Your task to perform on an android device: When is my next meeting? Image 0: 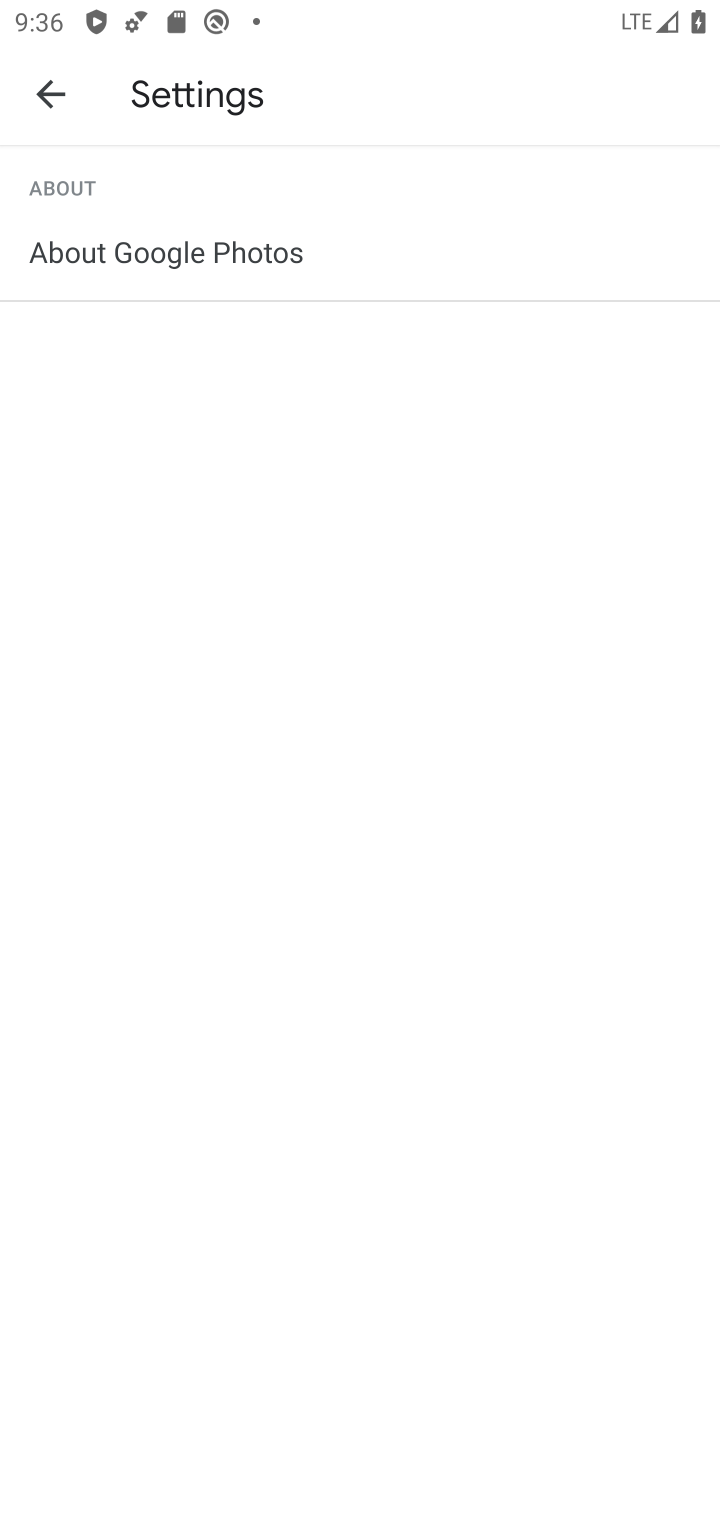
Step 0: press home button
Your task to perform on an android device: When is my next meeting? Image 1: 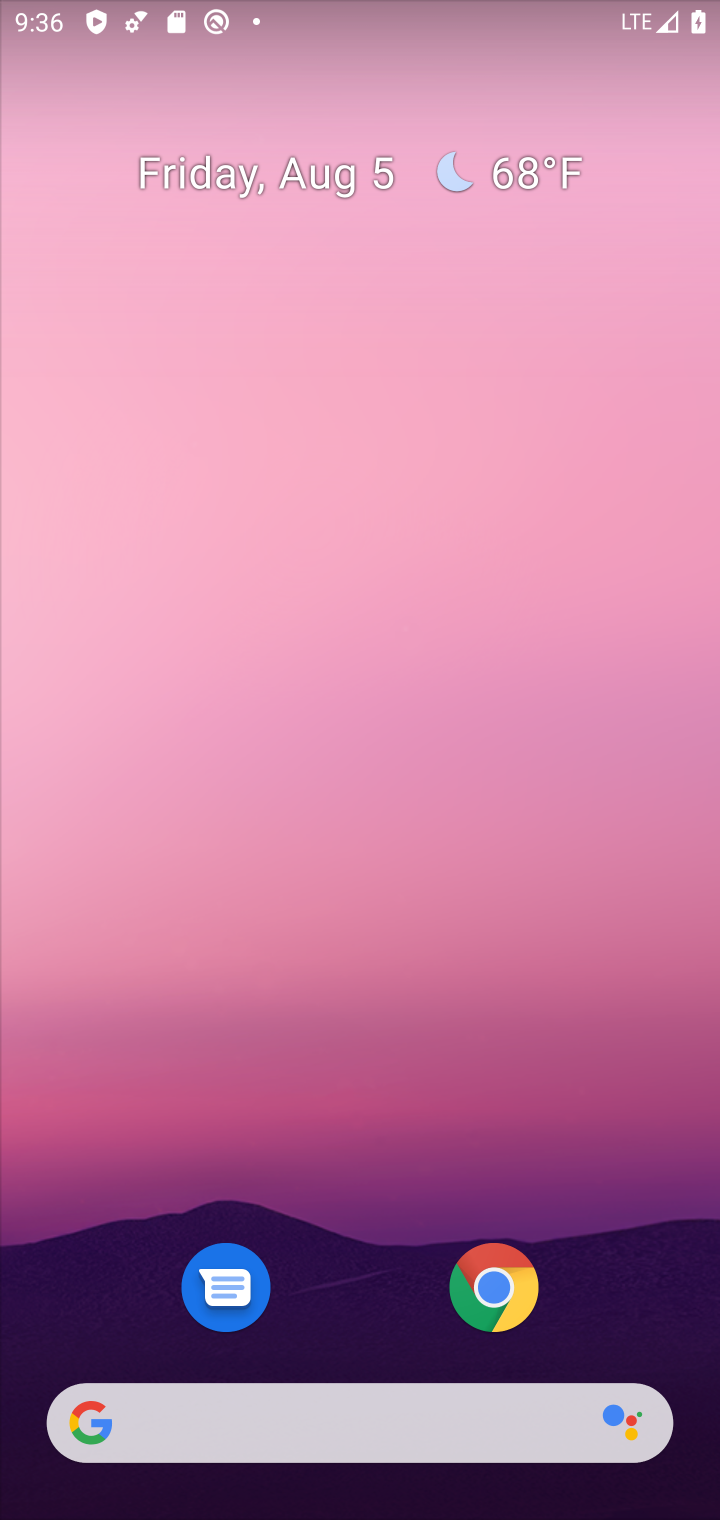
Step 1: drag from (295, 800) to (274, 213)
Your task to perform on an android device: When is my next meeting? Image 2: 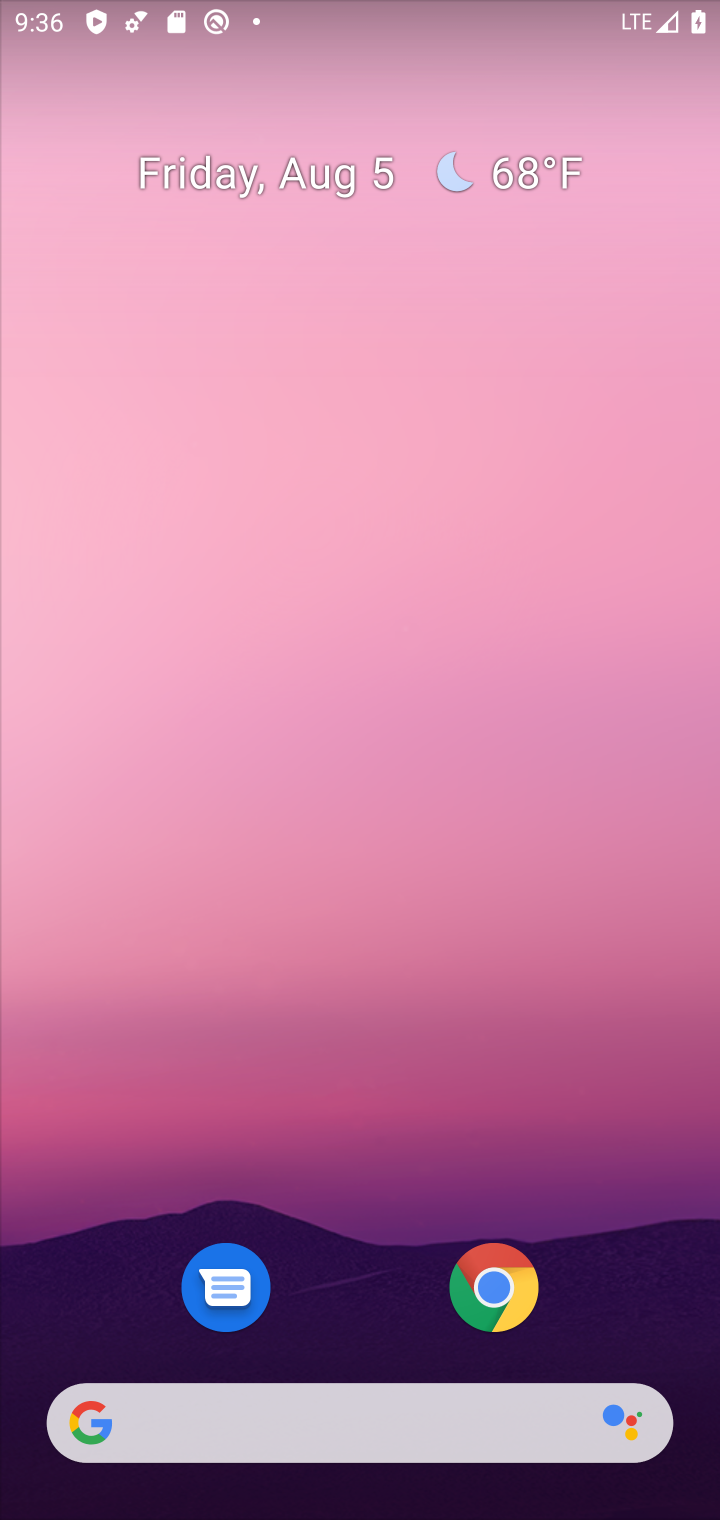
Step 2: drag from (336, 1246) to (297, 81)
Your task to perform on an android device: When is my next meeting? Image 3: 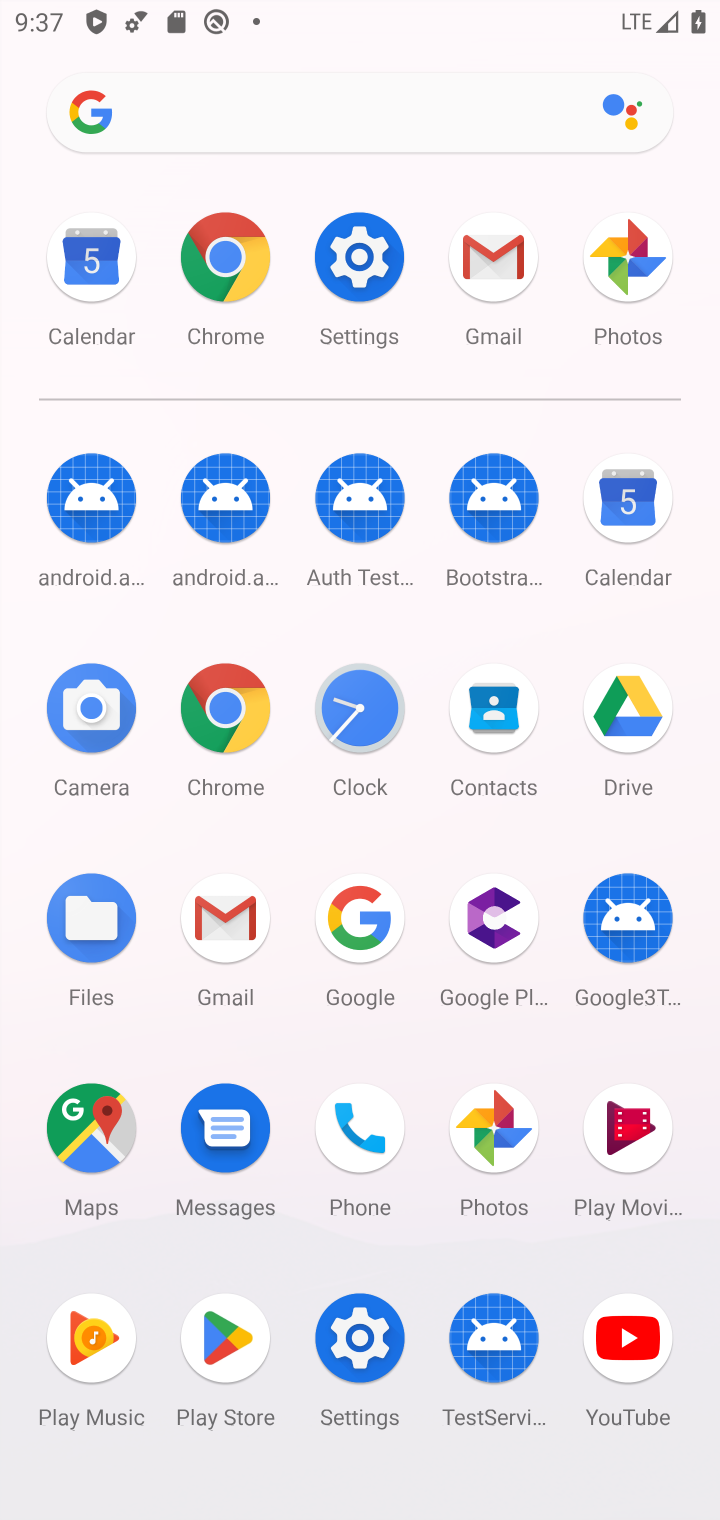
Step 3: click (624, 498)
Your task to perform on an android device: When is my next meeting? Image 4: 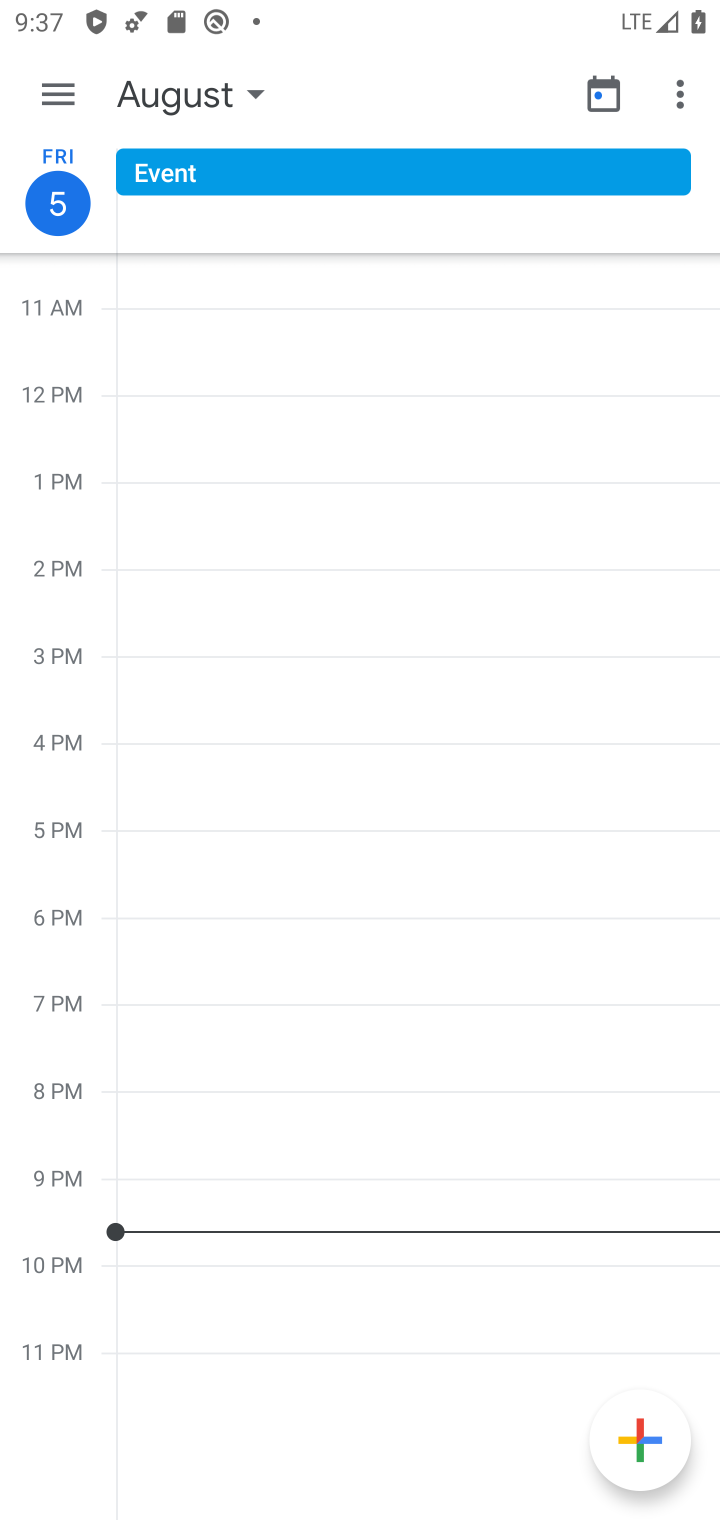
Step 4: click (257, 95)
Your task to perform on an android device: When is my next meeting? Image 5: 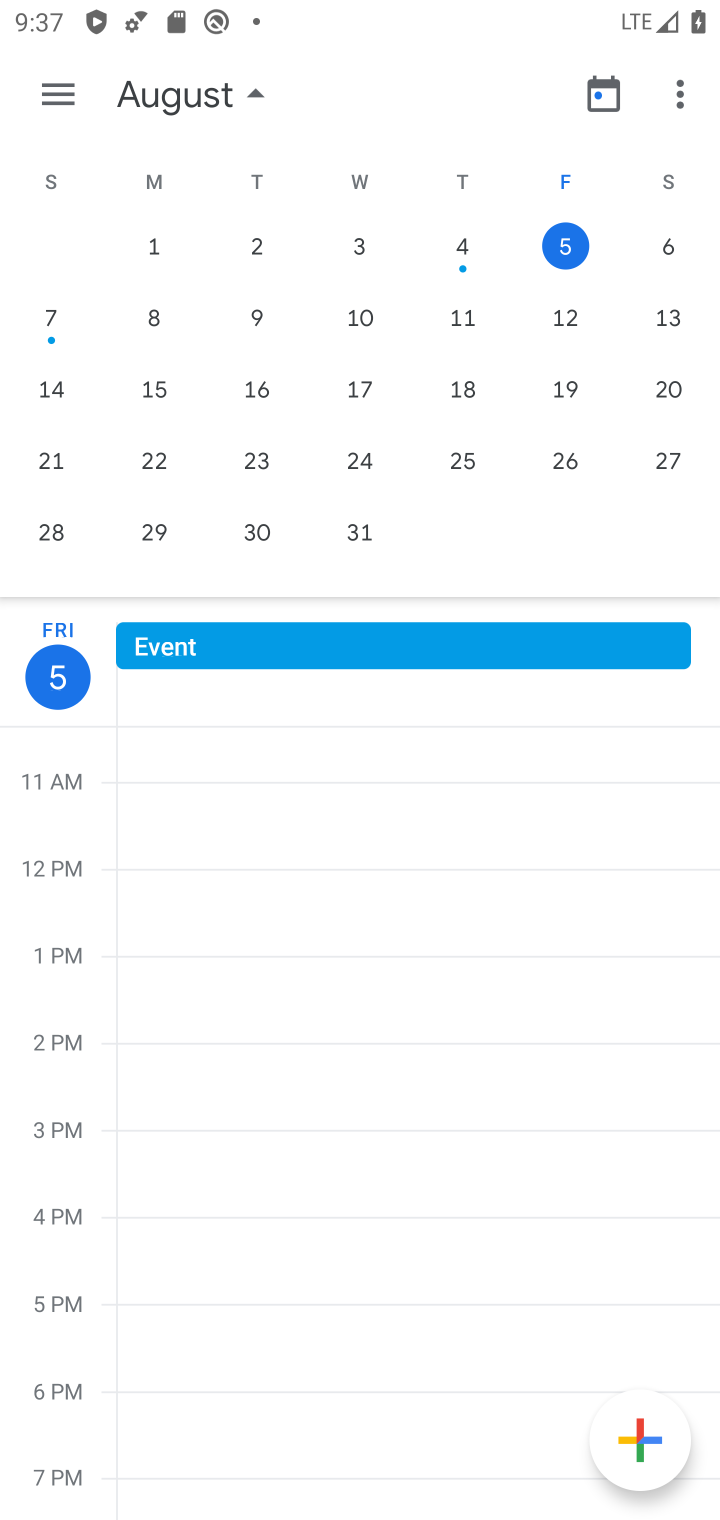
Step 5: click (663, 243)
Your task to perform on an android device: When is my next meeting? Image 6: 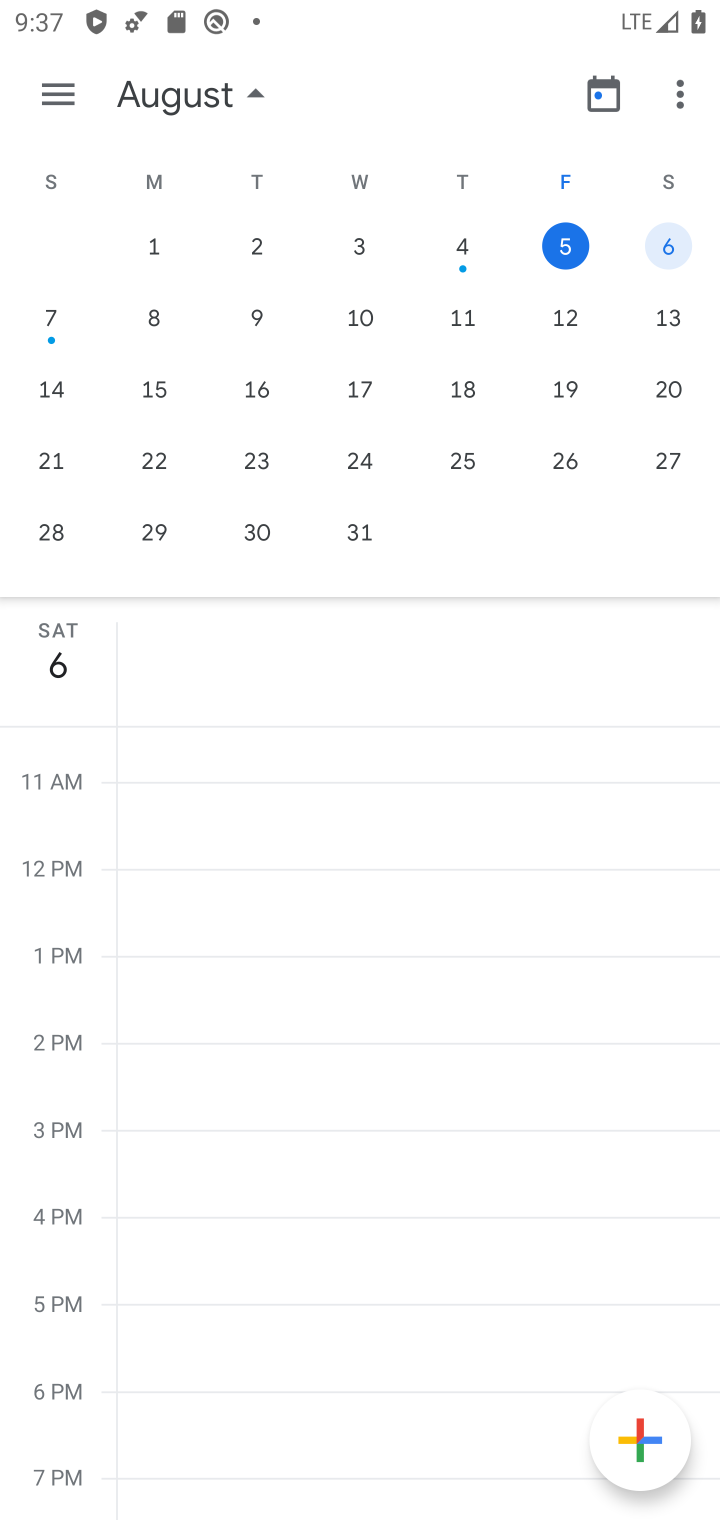
Step 6: click (657, 250)
Your task to perform on an android device: When is my next meeting? Image 7: 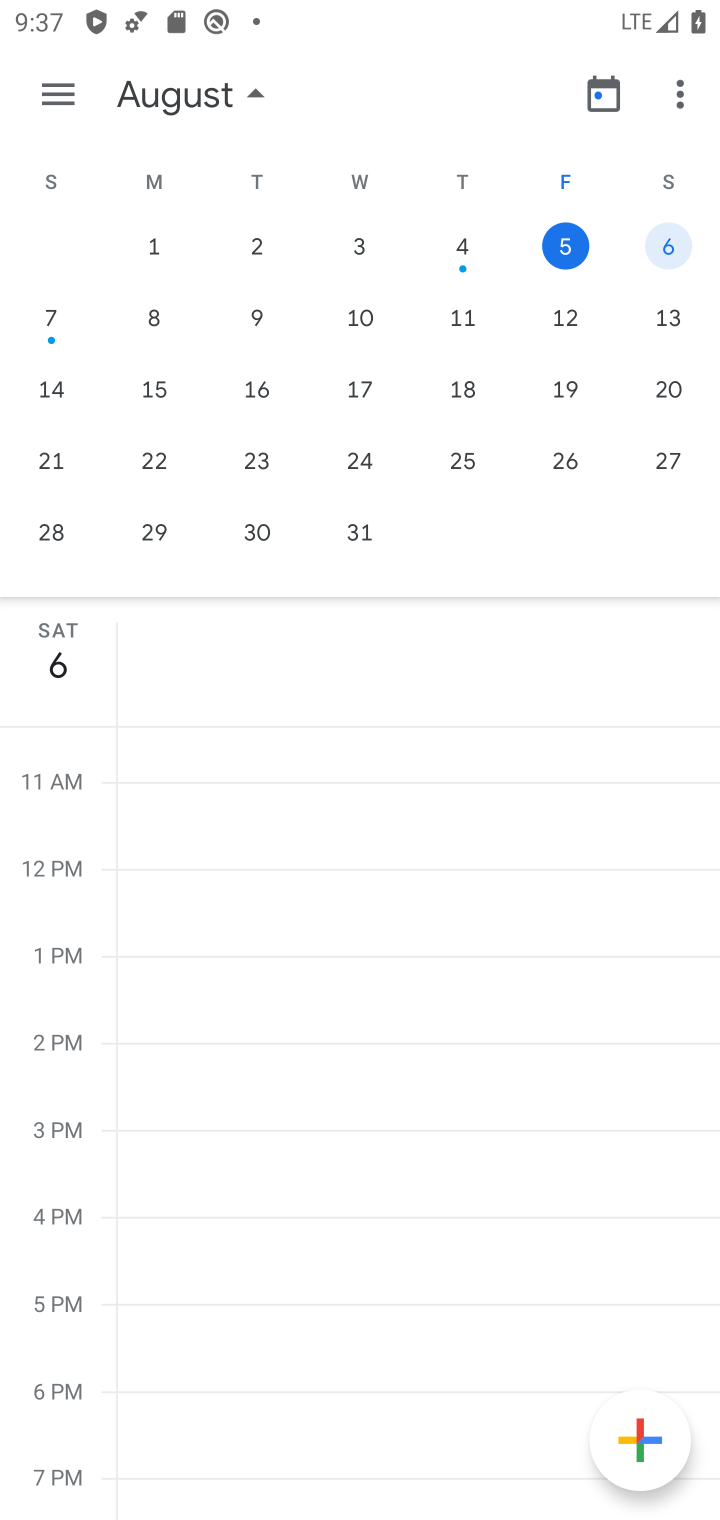
Step 7: click (46, 632)
Your task to perform on an android device: When is my next meeting? Image 8: 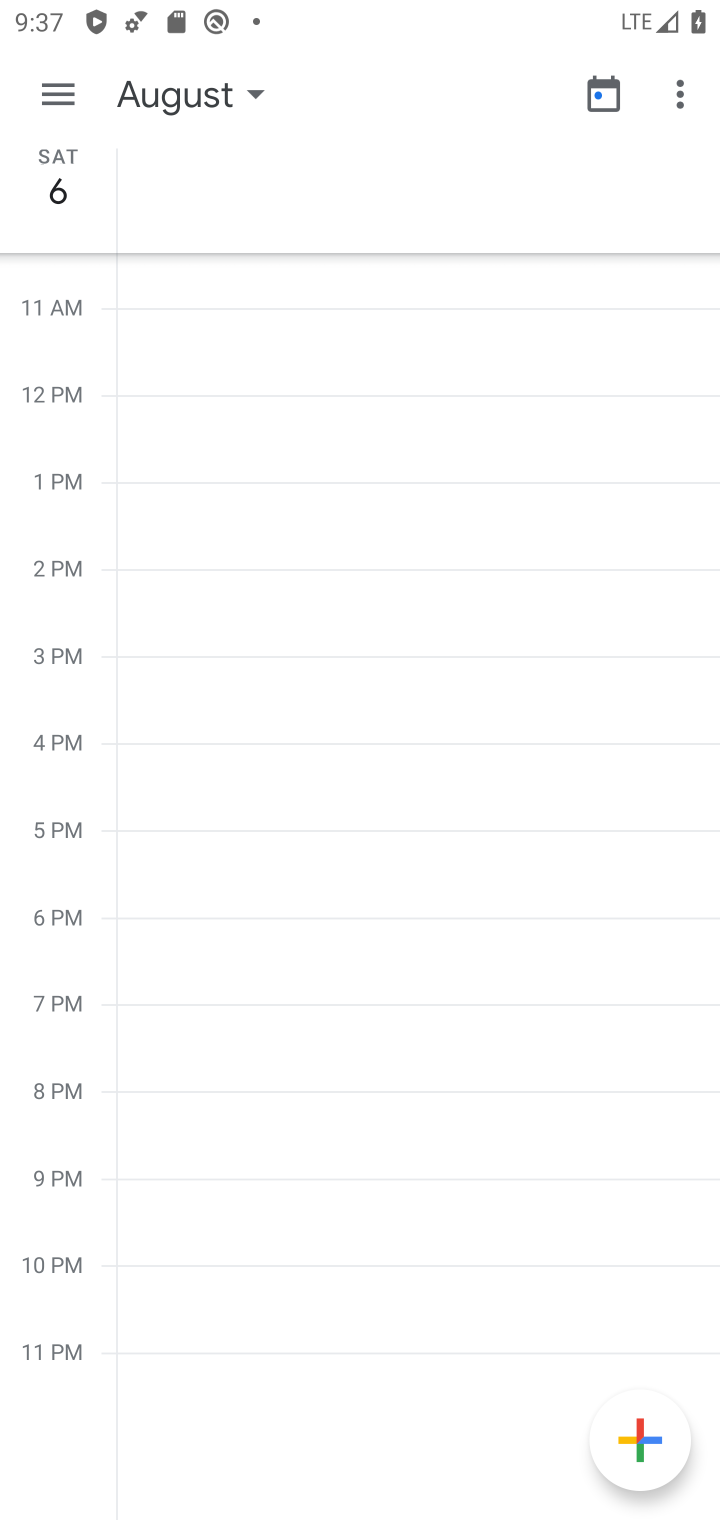
Step 8: task complete